Your task to perform on an android device: open a new tab in the chrome app Image 0: 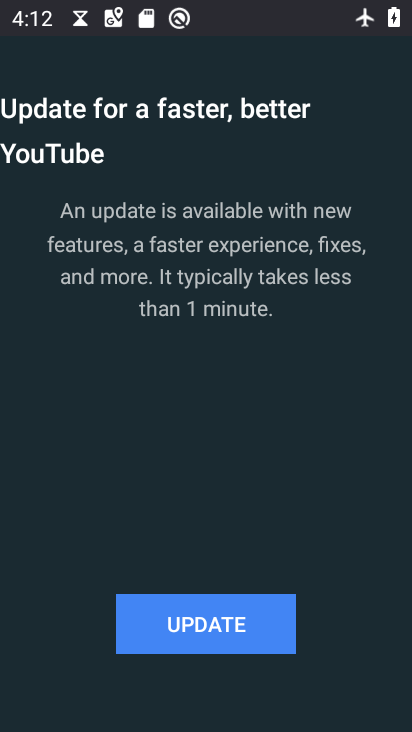
Step 0: press home button
Your task to perform on an android device: open a new tab in the chrome app Image 1: 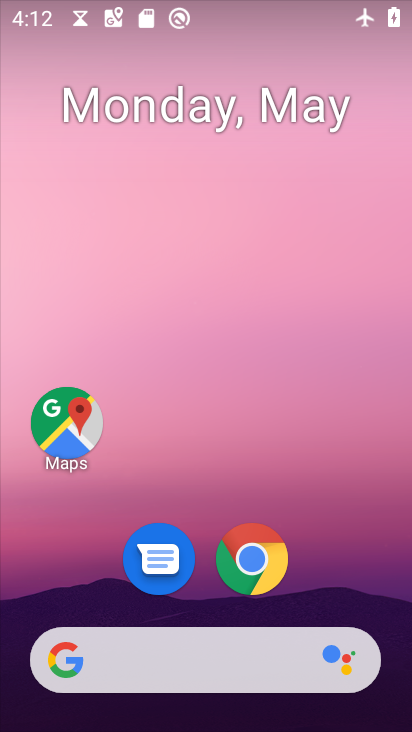
Step 1: drag from (287, 598) to (237, 71)
Your task to perform on an android device: open a new tab in the chrome app Image 2: 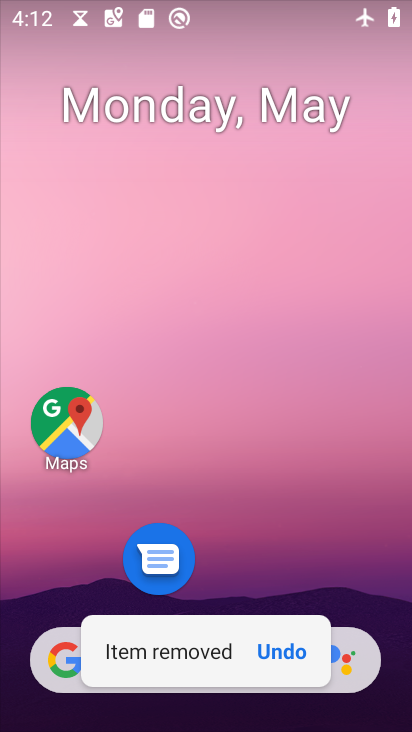
Step 2: click (291, 652)
Your task to perform on an android device: open a new tab in the chrome app Image 3: 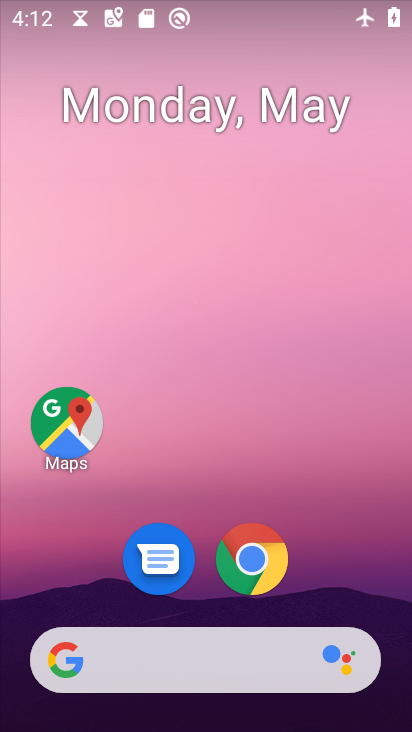
Step 3: click (247, 563)
Your task to perform on an android device: open a new tab in the chrome app Image 4: 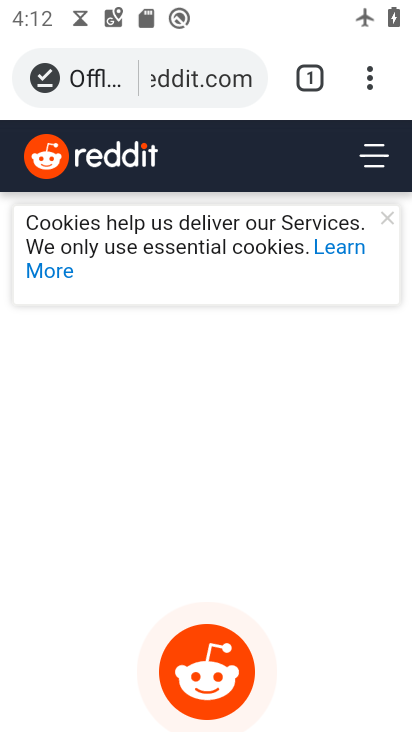
Step 4: click (312, 78)
Your task to perform on an android device: open a new tab in the chrome app Image 5: 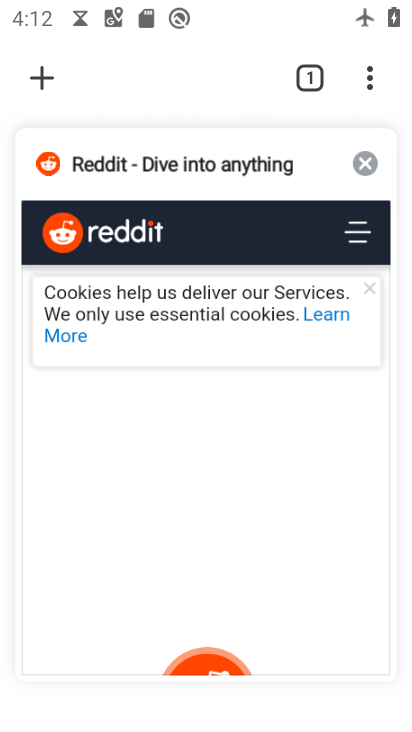
Step 5: click (38, 79)
Your task to perform on an android device: open a new tab in the chrome app Image 6: 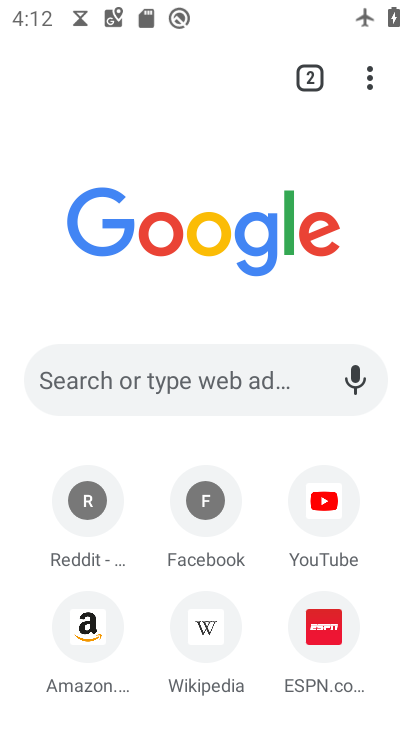
Step 6: task complete